Your task to perform on an android device: change alarm snooze length Image 0: 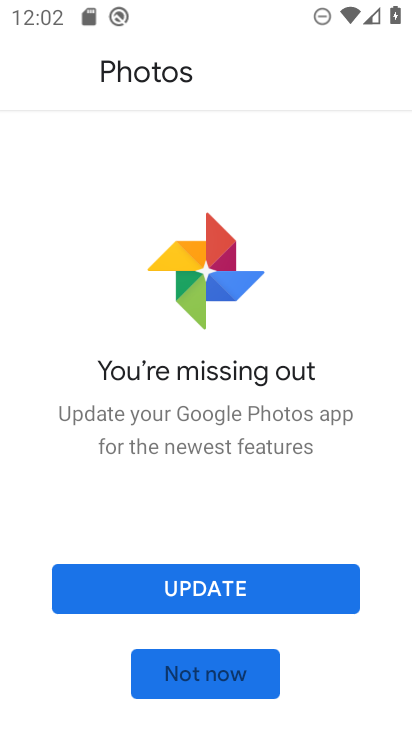
Step 0: press back button
Your task to perform on an android device: change alarm snooze length Image 1: 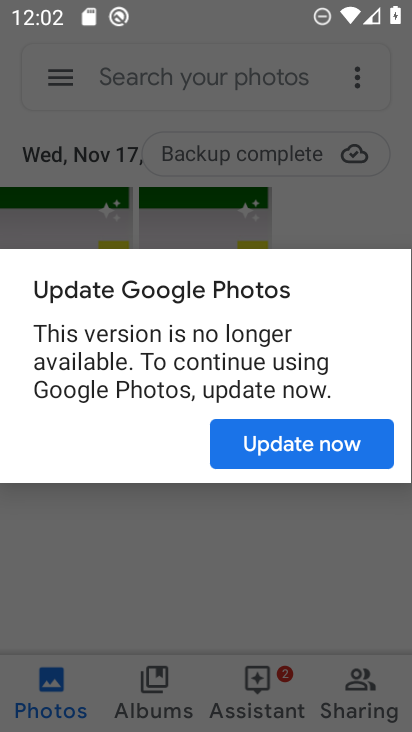
Step 1: press home button
Your task to perform on an android device: change alarm snooze length Image 2: 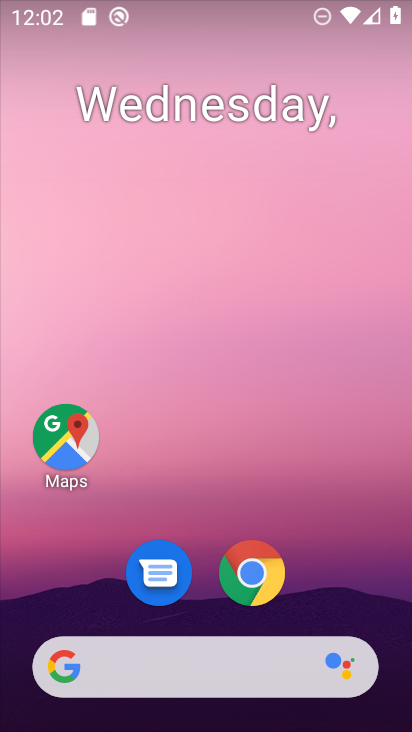
Step 2: drag from (329, 348) to (301, 170)
Your task to perform on an android device: change alarm snooze length Image 3: 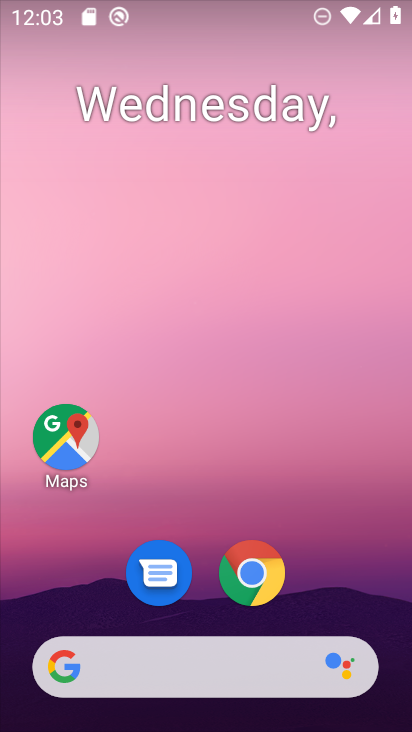
Step 3: drag from (369, 592) to (335, 142)
Your task to perform on an android device: change alarm snooze length Image 4: 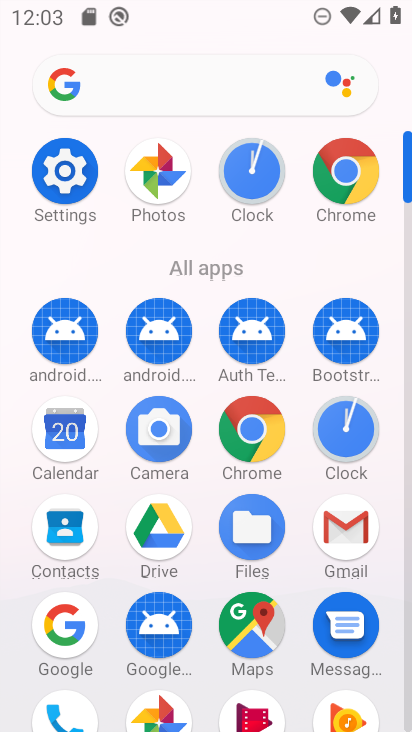
Step 4: click (353, 421)
Your task to perform on an android device: change alarm snooze length Image 5: 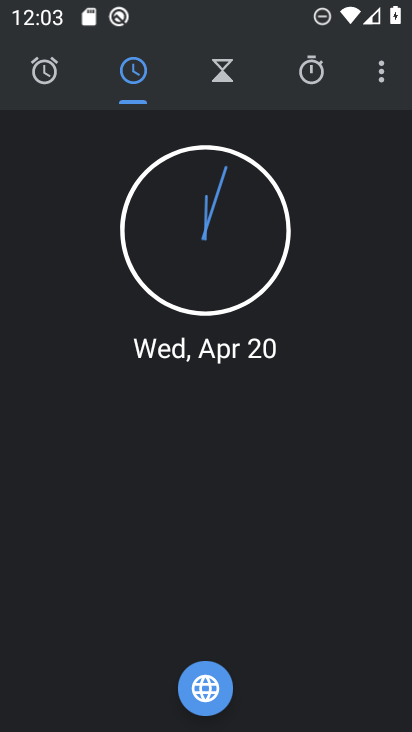
Step 5: click (373, 80)
Your task to perform on an android device: change alarm snooze length Image 6: 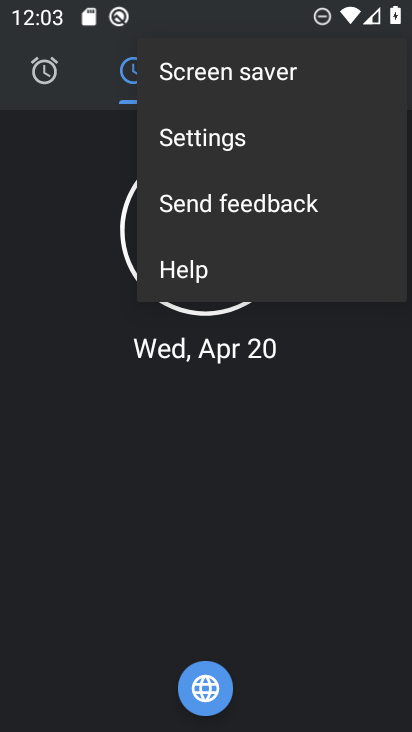
Step 6: click (343, 148)
Your task to perform on an android device: change alarm snooze length Image 7: 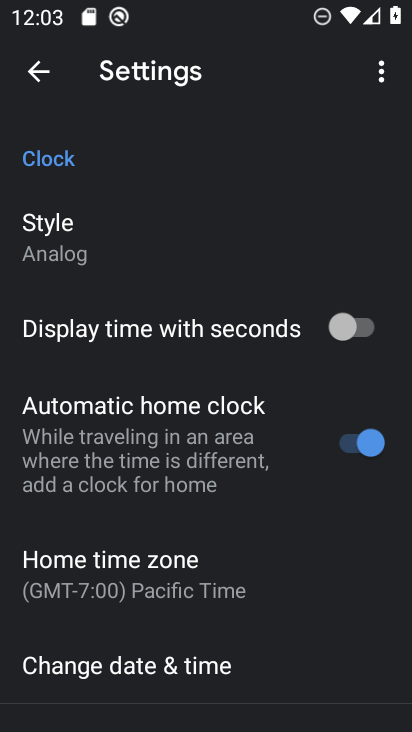
Step 7: drag from (267, 663) to (251, 270)
Your task to perform on an android device: change alarm snooze length Image 8: 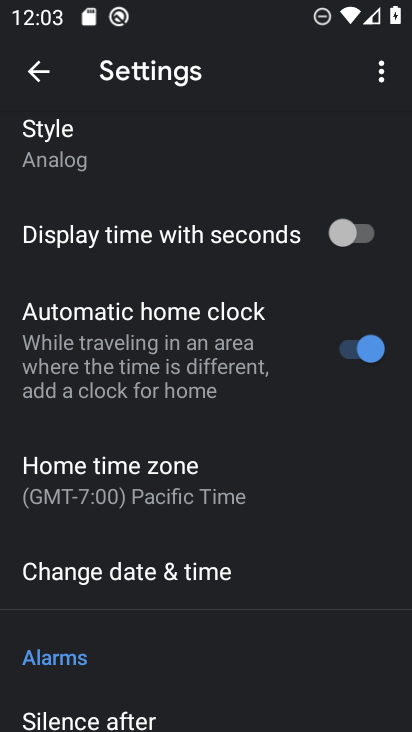
Step 8: drag from (261, 334) to (253, 153)
Your task to perform on an android device: change alarm snooze length Image 9: 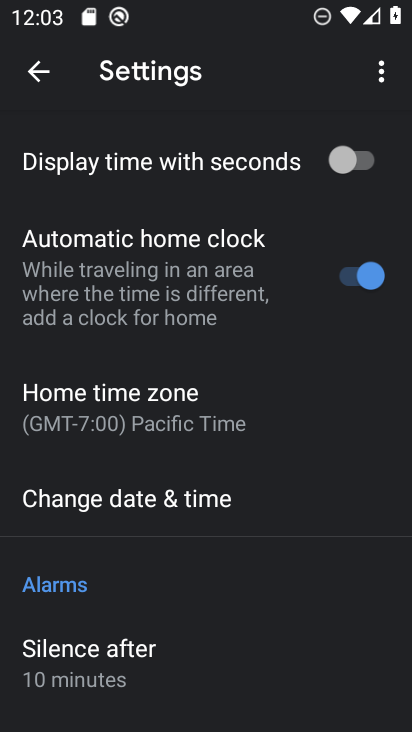
Step 9: drag from (253, 623) to (233, 145)
Your task to perform on an android device: change alarm snooze length Image 10: 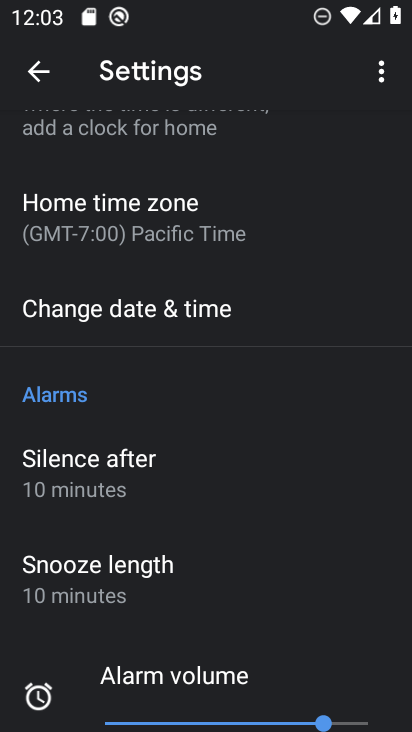
Step 10: drag from (229, 624) to (201, 342)
Your task to perform on an android device: change alarm snooze length Image 11: 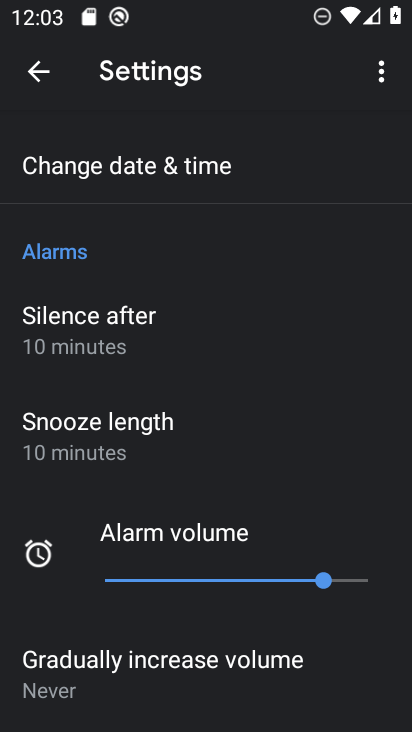
Step 11: click (218, 425)
Your task to perform on an android device: change alarm snooze length Image 12: 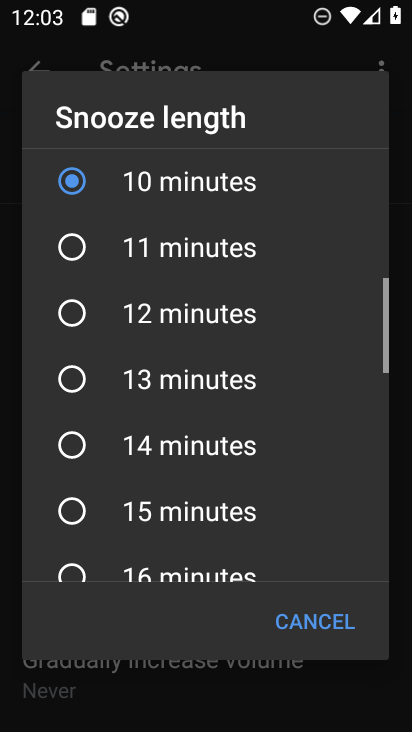
Step 12: click (208, 522)
Your task to perform on an android device: change alarm snooze length Image 13: 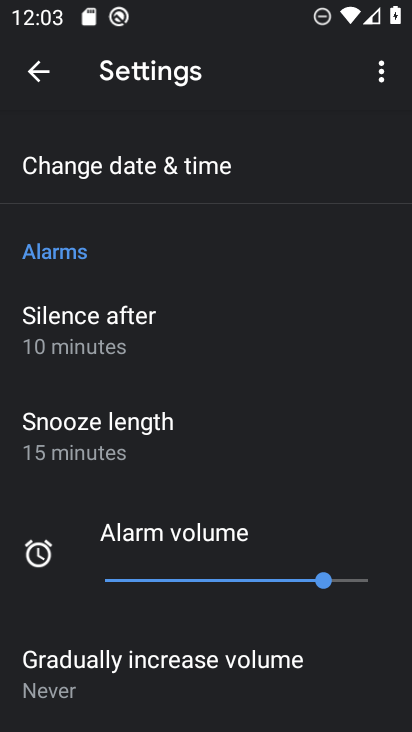
Step 13: task complete